Your task to perform on an android device: uninstall "Airtel Thanks" Image 0: 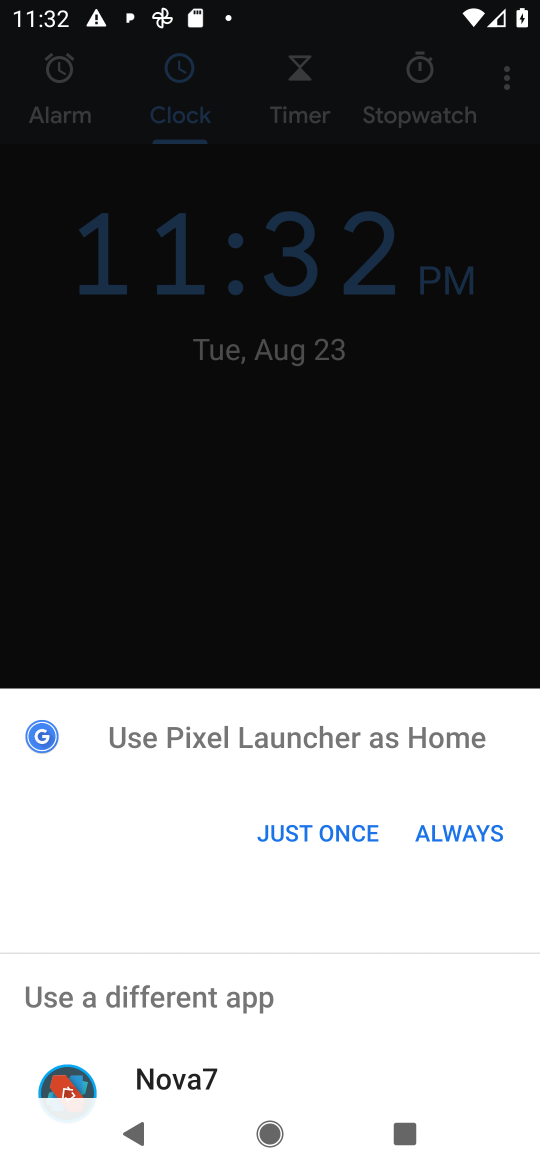
Step 0: press home button
Your task to perform on an android device: uninstall "Airtel Thanks" Image 1: 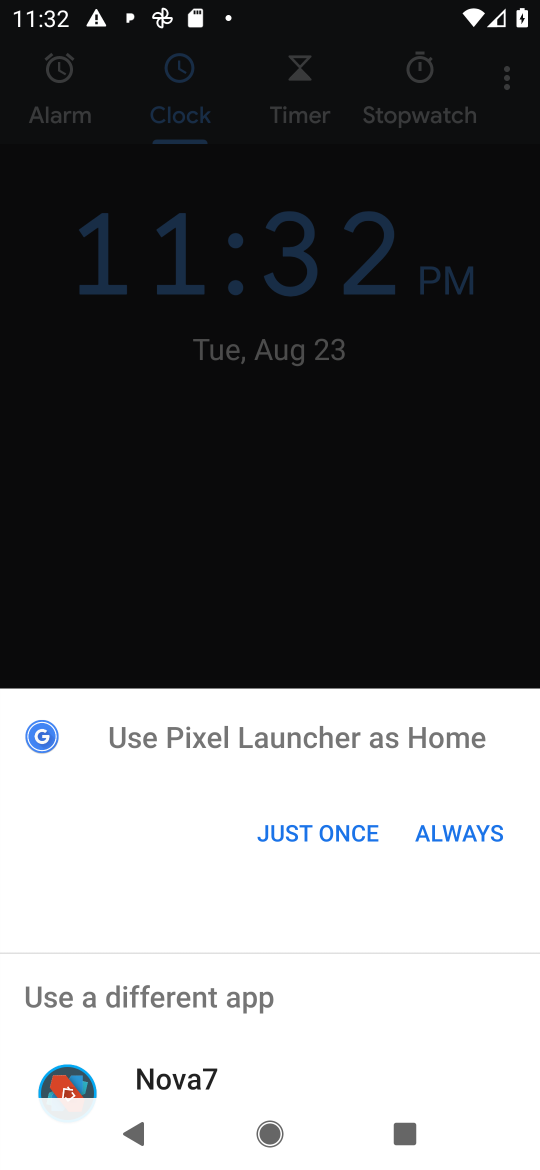
Step 1: click (467, 820)
Your task to perform on an android device: uninstall "Airtel Thanks" Image 2: 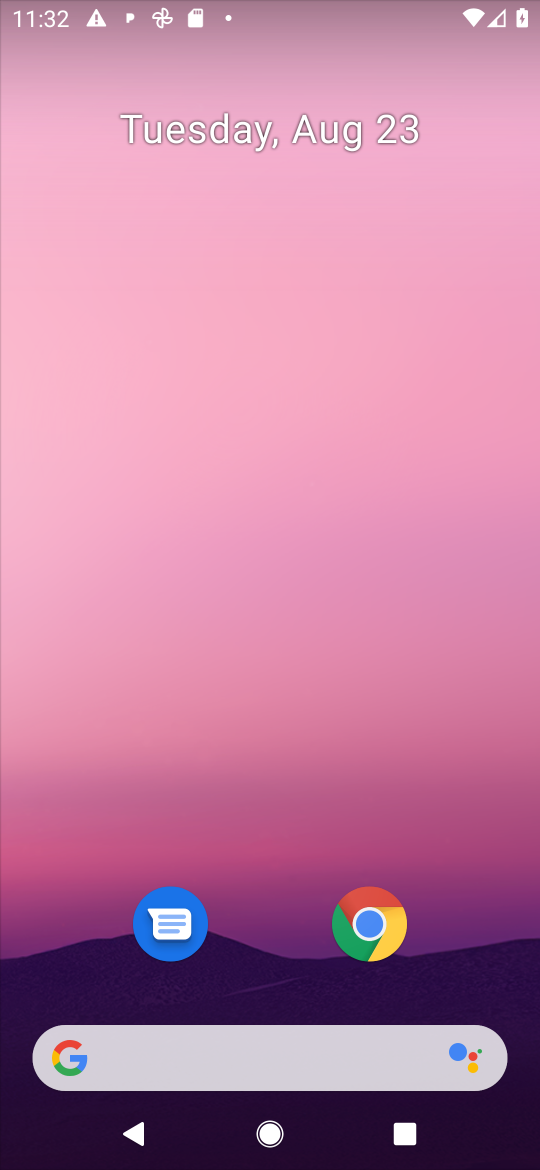
Step 2: drag from (474, 957) to (509, 87)
Your task to perform on an android device: uninstall "Airtel Thanks" Image 3: 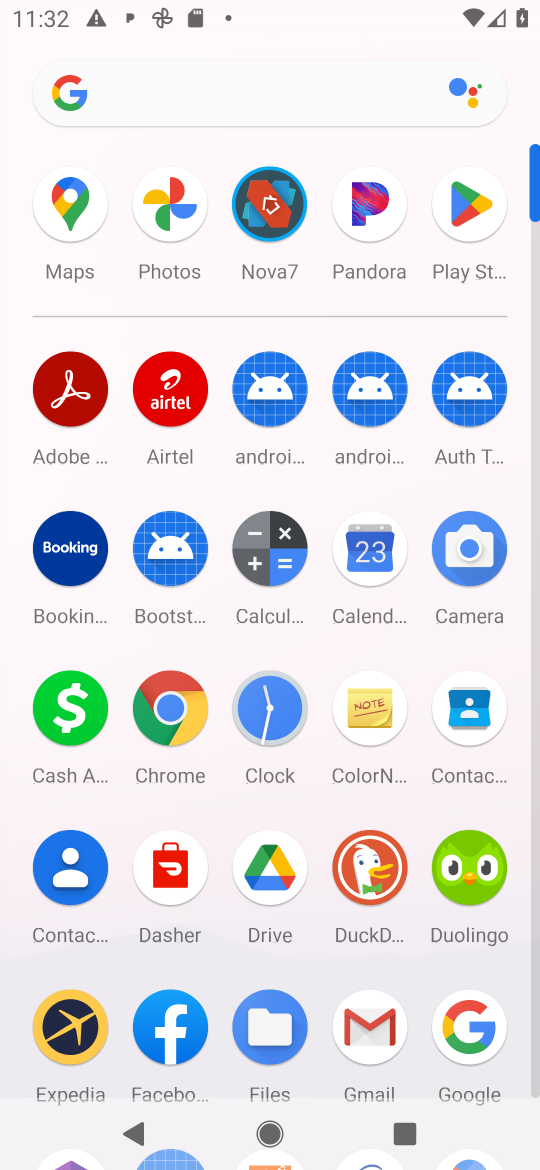
Step 3: click (468, 212)
Your task to perform on an android device: uninstall "Airtel Thanks" Image 4: 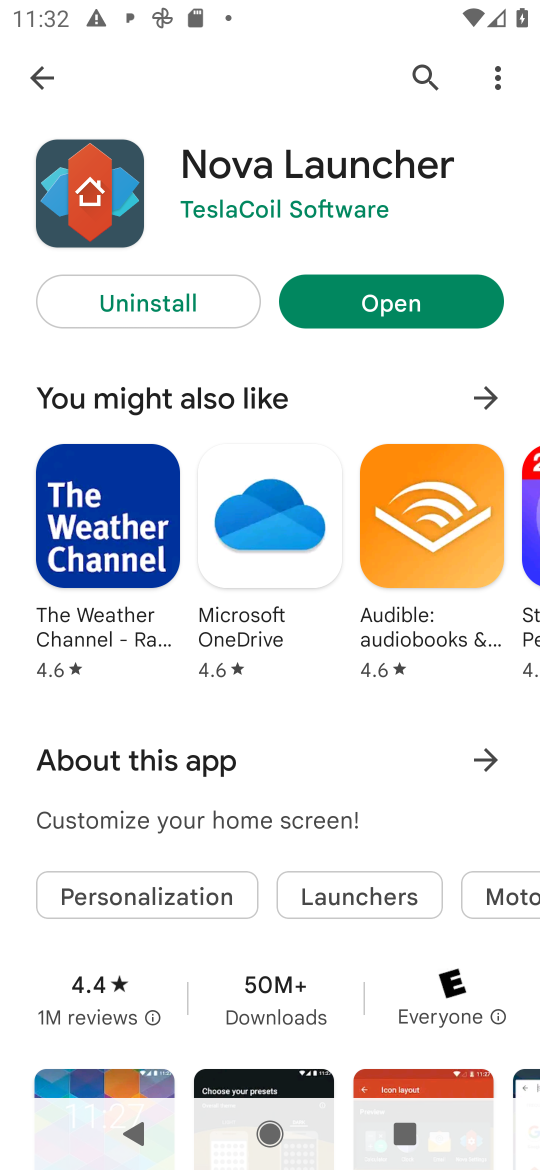
Step 4: press back button
Your task to perform on an android device: uninstall "Airtel Thanks" Image 5: 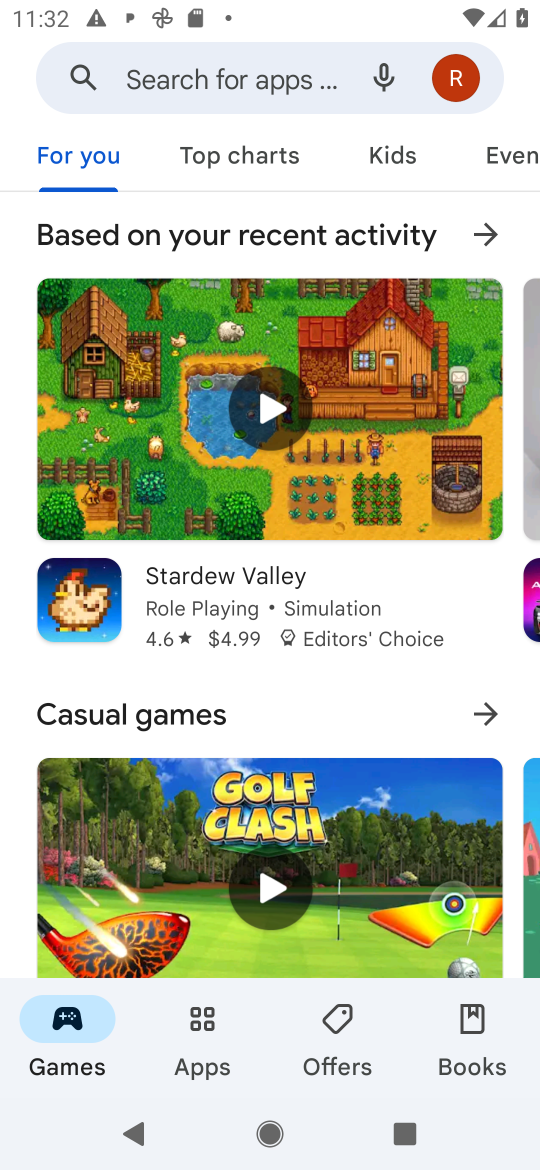
Step 5: click (276, 79)
Your task to perform on an android device: uninstall "Airtel Thanks" Image 6: 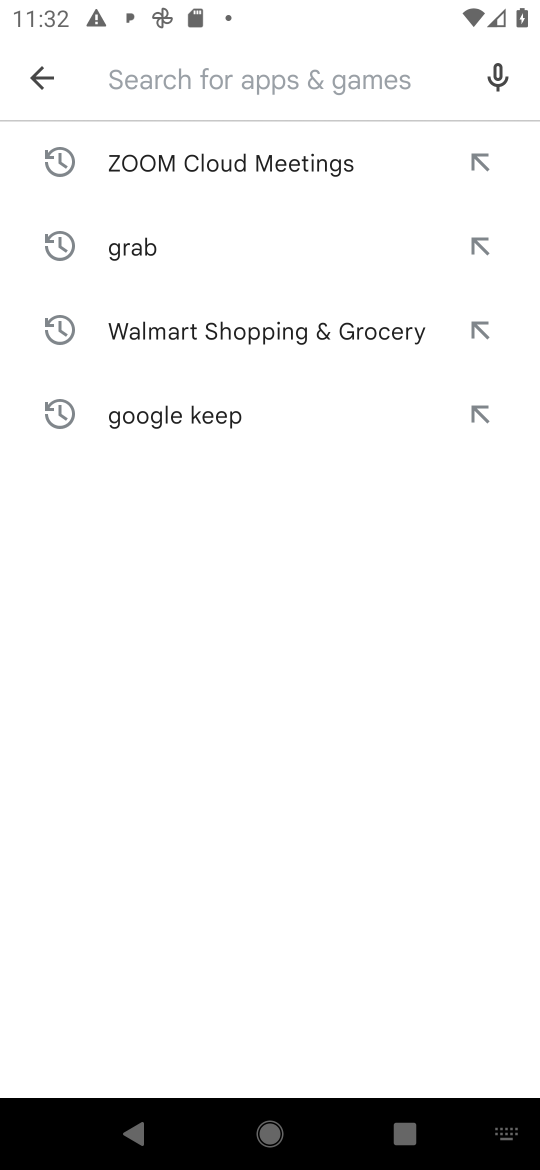
Step 6: press enter
Your task to perform on an android device: uninstall "Airtel Thanks" Image 7: 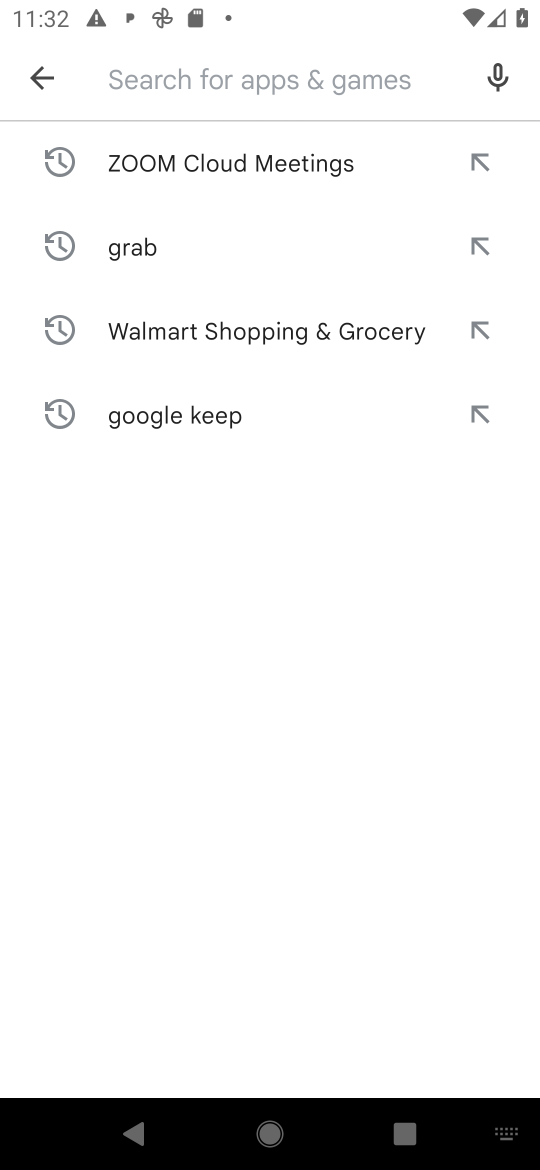
Step 7: type "airtel thanks"
Your task to perform on an android device: uninstall "Airtel Thanks" Image 8: 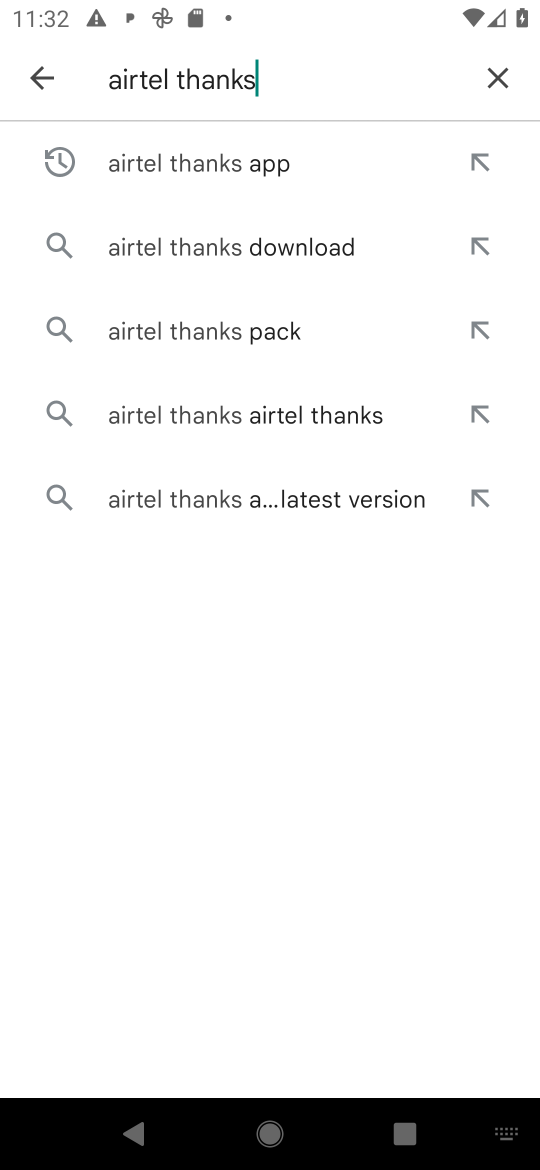
Step 8: click (260, 166)
Your task to perform on an android device: uninstall "Airtel Thanks" Image 9: 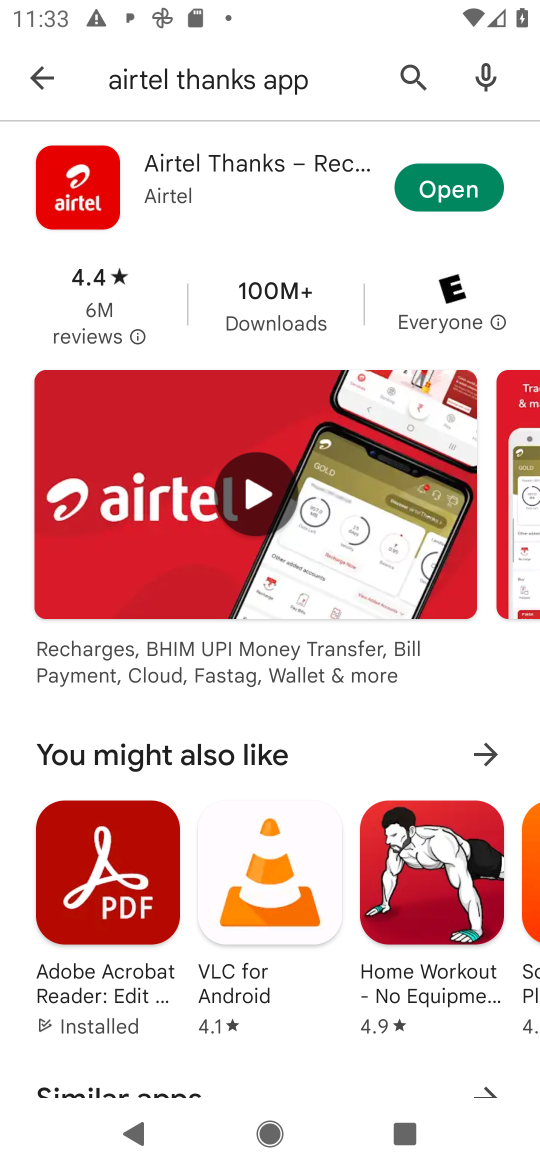
Step 9: task complete